Your task to perform on an android device: change the clock display to analog Image 0: 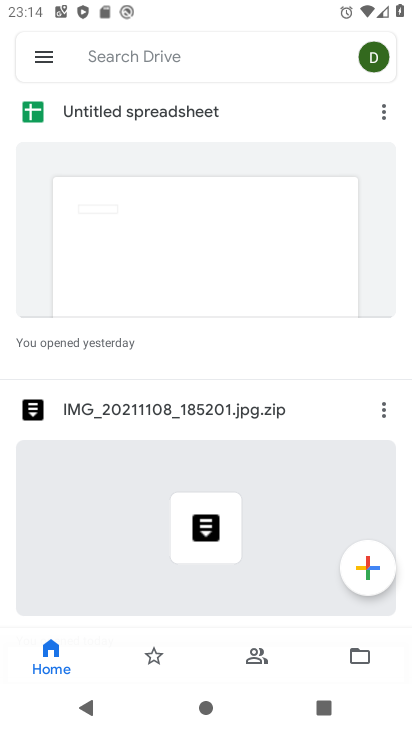
Step 0: press home button
Your task to perform on an android device: change the clock display to analog Image 1: 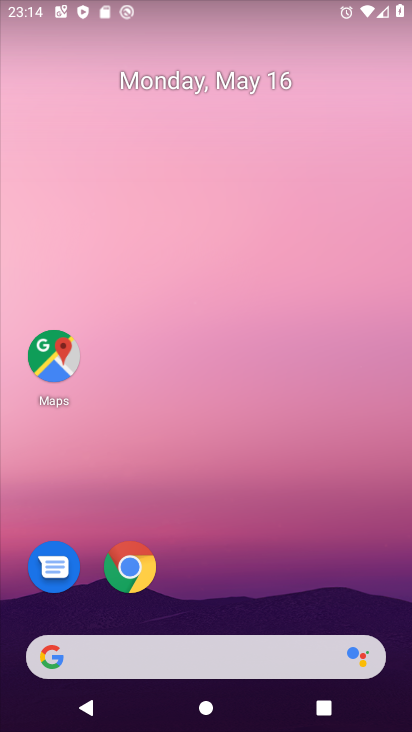
Step 1: drag from (245, 537) to (136, 18)
Your task to perform on an android device: change the clock display to analog Image 2: 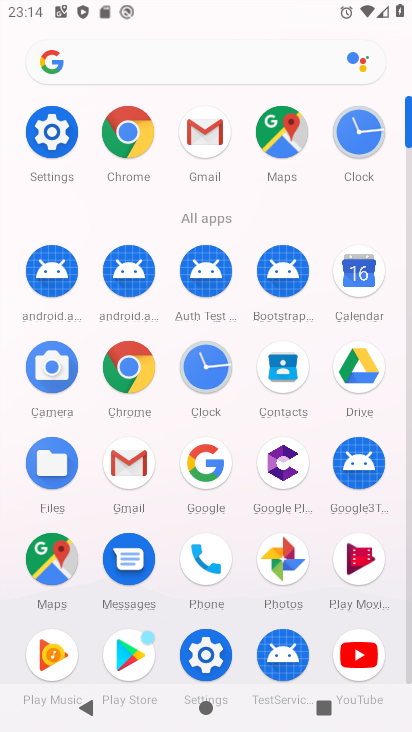
Step 2: click (352, 138)
Your task to perform on an android device: change the clock display to analog Image 3: 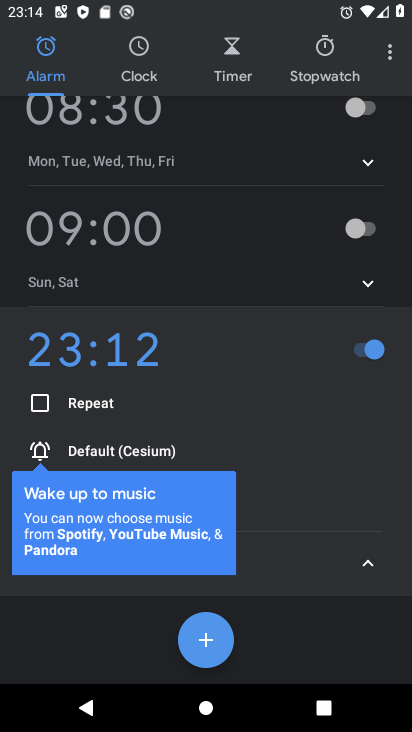
Step 3: click (393, 53)
Your task to perform on an android device: change the clock display to analog Image 4: 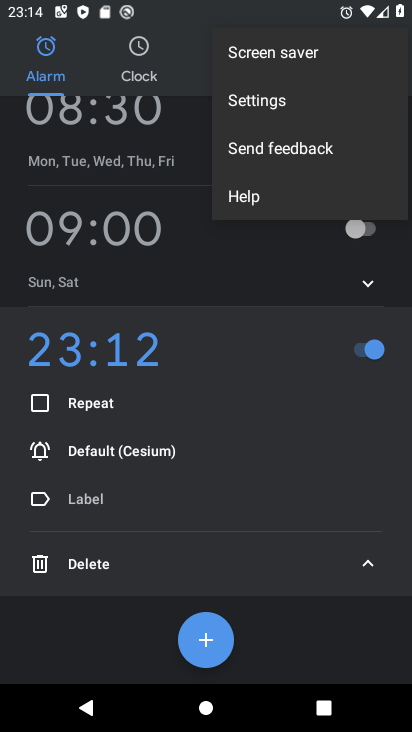
Step 4: click (261, 97)
Your task to perform on an android device: change the clock display to analog Image 5: 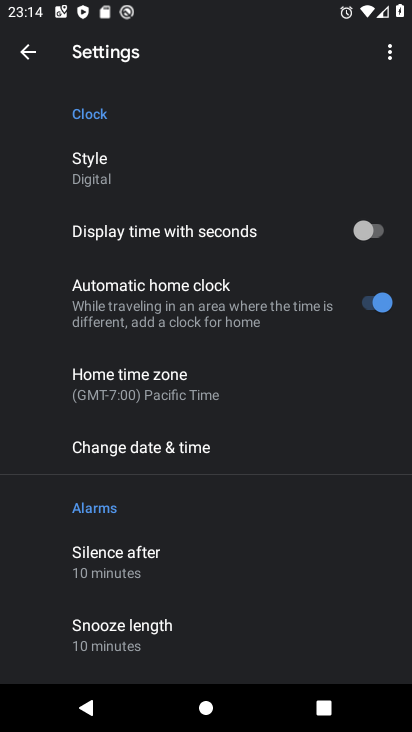
Step 5: click (84, 165)
Your task to perform on an android device: change the clock display to analog Image 6: 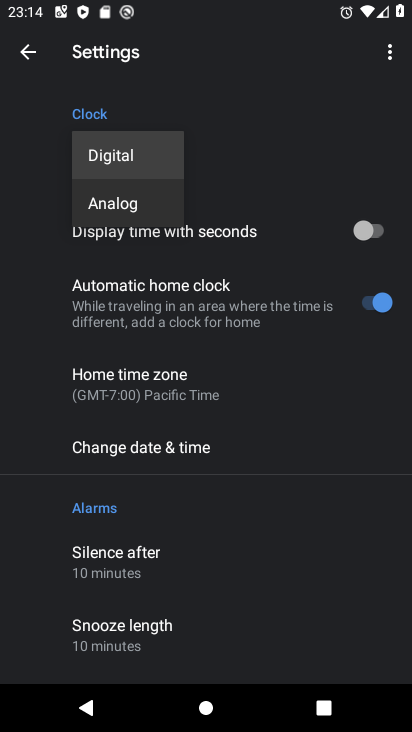
Step 6: click (120, 208)
Your task to perform on an android device: change the clock display to analog Image 7: 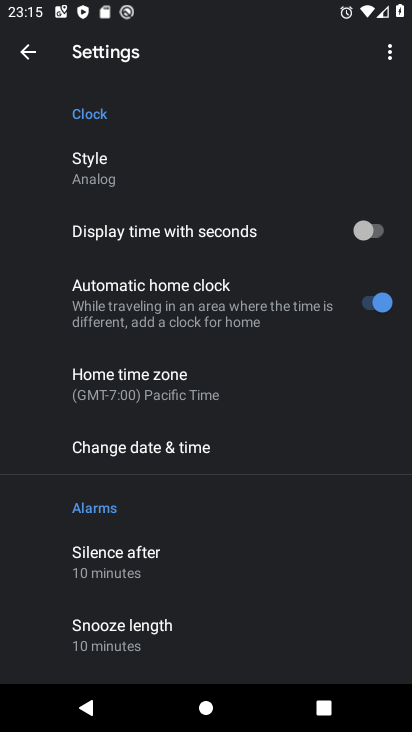
Step 7: task complete